Your task to perform on an android device: search for starred emails in the gmail app Image 0: 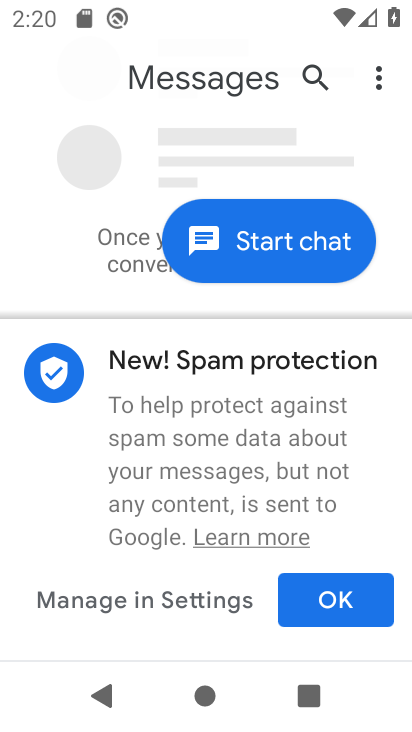
Step 0: press home button
Your task to perform on an android device: search for starred emails in the gmail app Image 1: 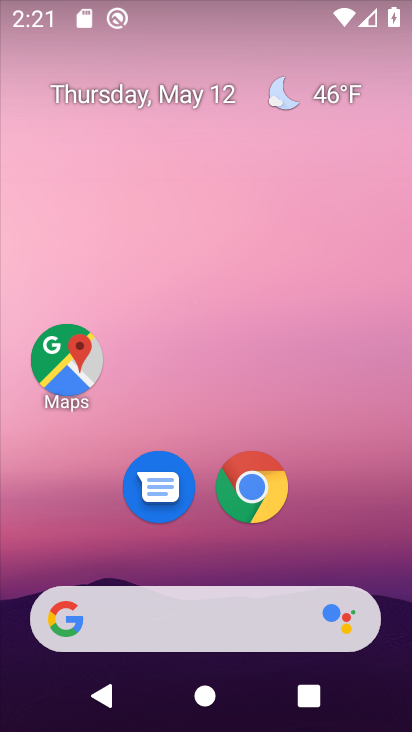
Step 1: drag from (297, 553) to (248, 11)
Your task to perform on an android device: search for starred emails in the gmail app Image 2: 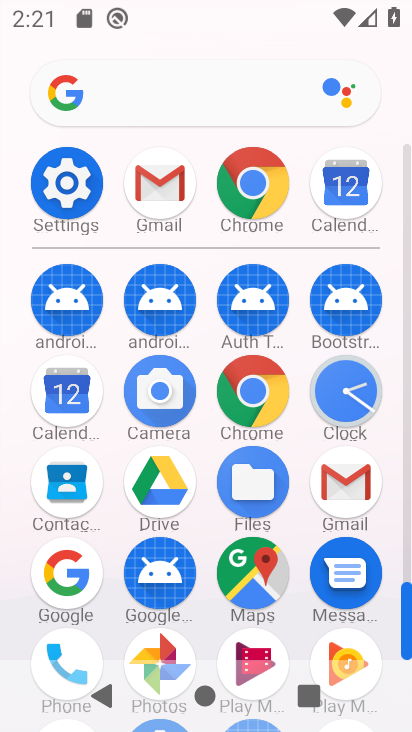
Step 2: click (334, 475)
Your task to perform on an android device: search for starred emails in the gmail app Image 3: 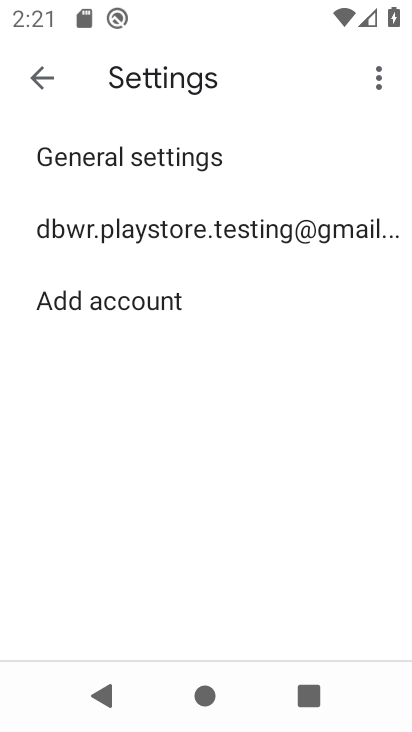
Step 3: click (37, 87)
Your task to perform on an android device: search for starred emails in the gmail app Image 4: 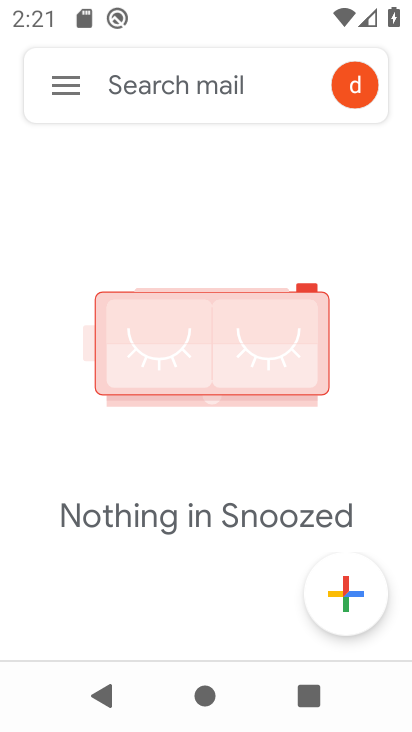
Step 4: click (60, 76)
Your task to perform on an android device: search for starred emails in the gmail app Image 5: 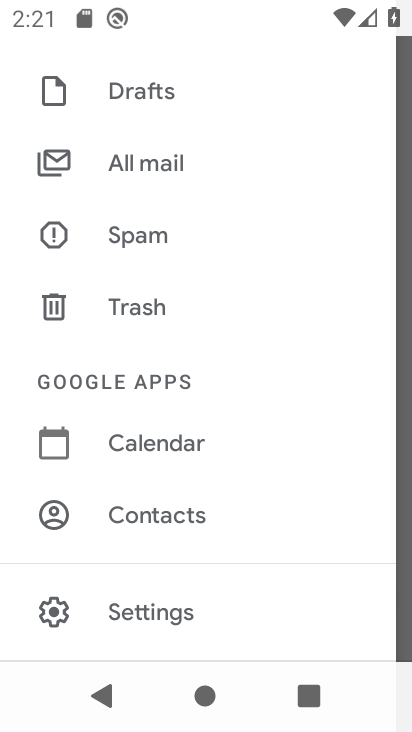
Step 5: drag from (154, 177) to (101, 544)
Your task to perform on an android device: search for starred emails in the gmail app Image 6: 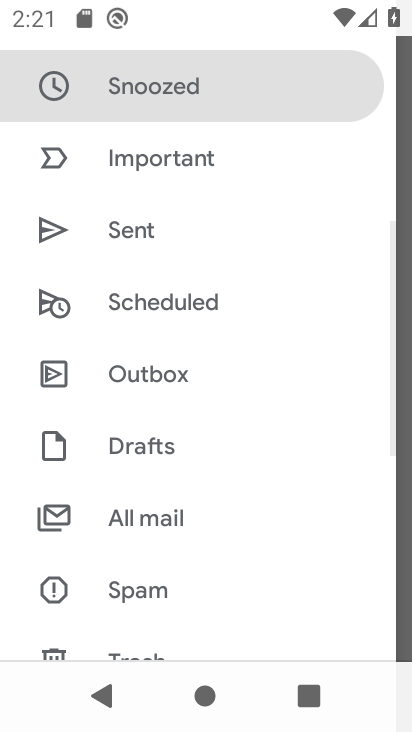
Step 6: drag from (154, 148) to (158, 694)
Your task to perform on an android device: search for starred emails in the gmail app Image 7: 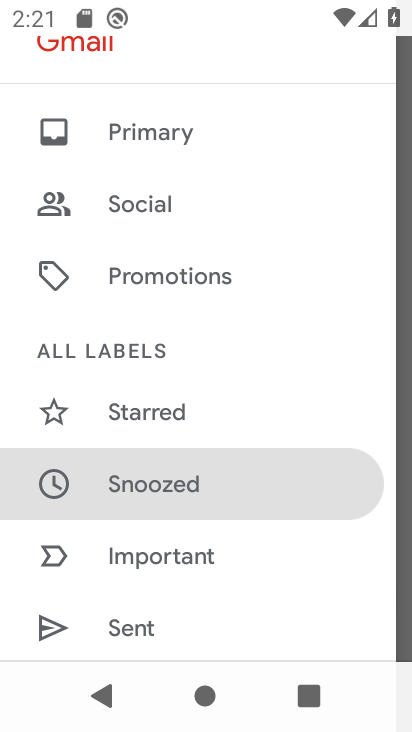
Step 7: click (158, 406)
Your task to perform on an android device: search for starred emails in the gmail app Image 8: 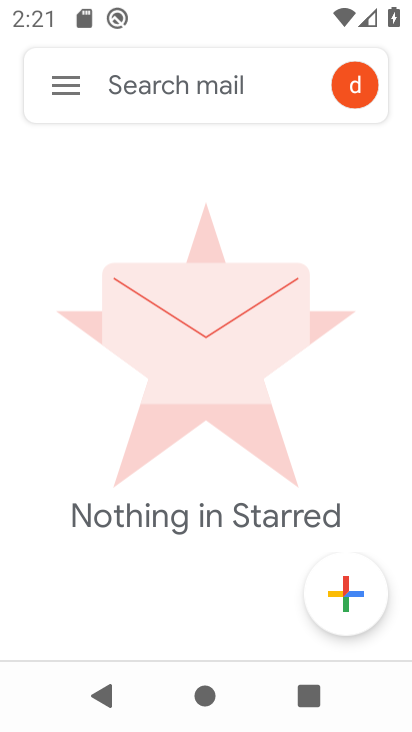
Step 8: task complete